Your task to perform on an android device: turn notification dots on Image 0: 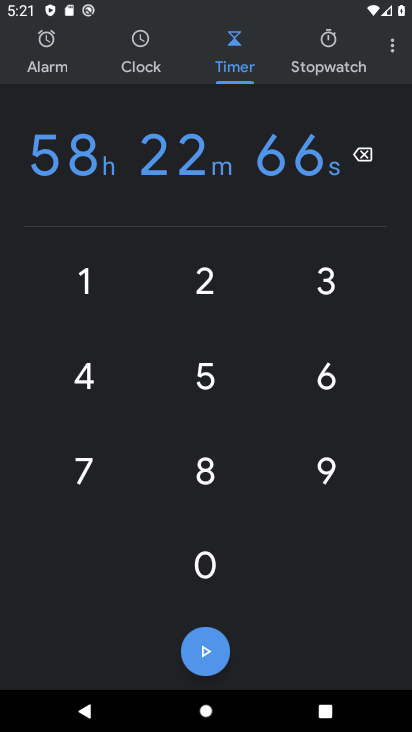
Step 0: press home button
Your task to perform on an android device: turn notification dots on Image 1: 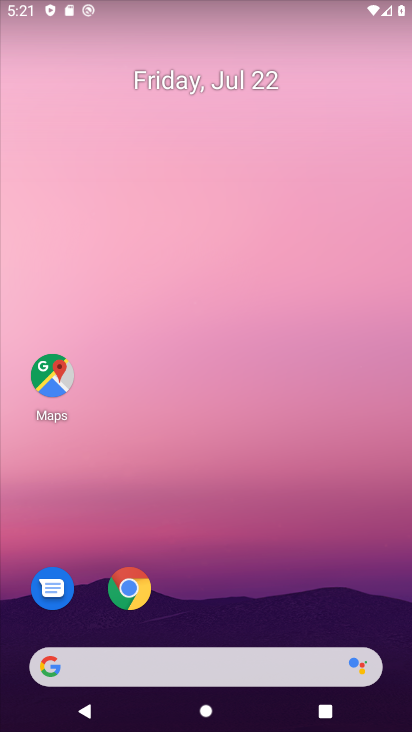
Step 1: task complete